Your task to perform on an android device: open device folders in google photos Image 0: 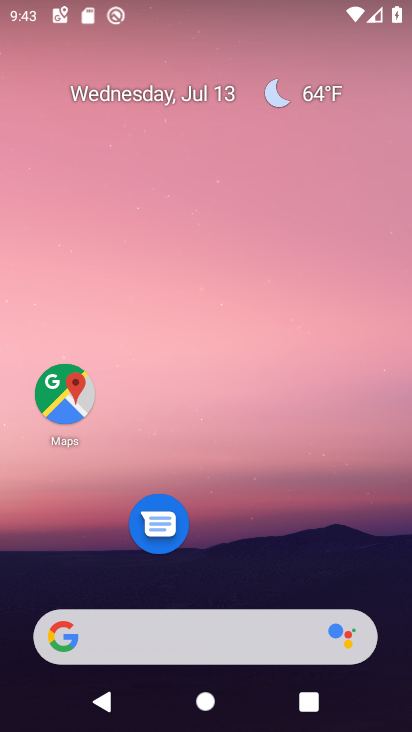
Step 0: drag from (178, 591) to (192, 50)
Your task to perform on an android device: open device folders in google photos Image 1: 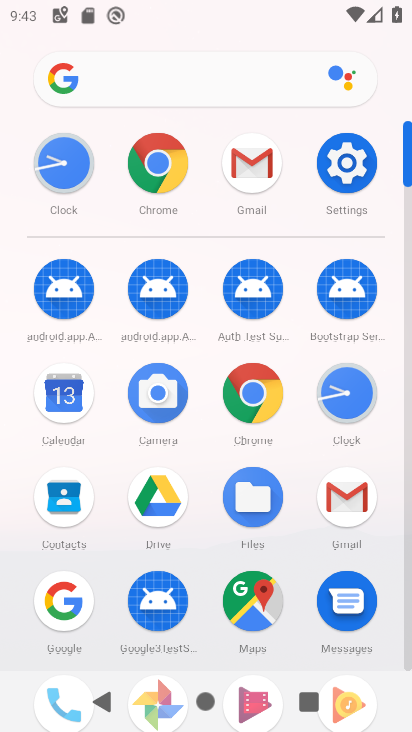
Step 1: drag from (190, 656) to (145, 192)
Your task to perform on an android device: open device folders in google photos Image 2: 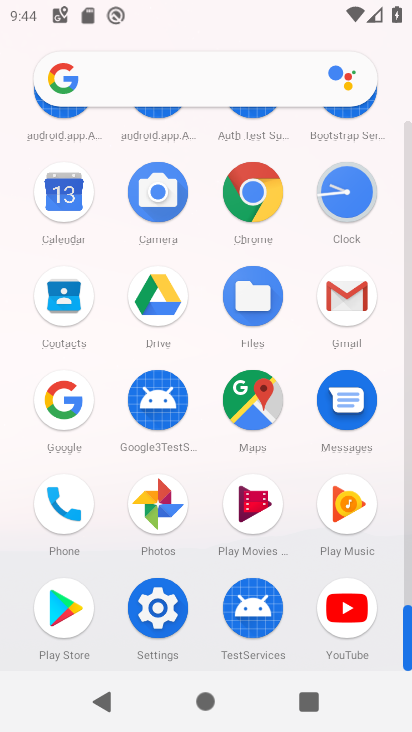
Step 2: click (168, 490)
Your task to perform on an android device: open device folders in google photos Image 3: 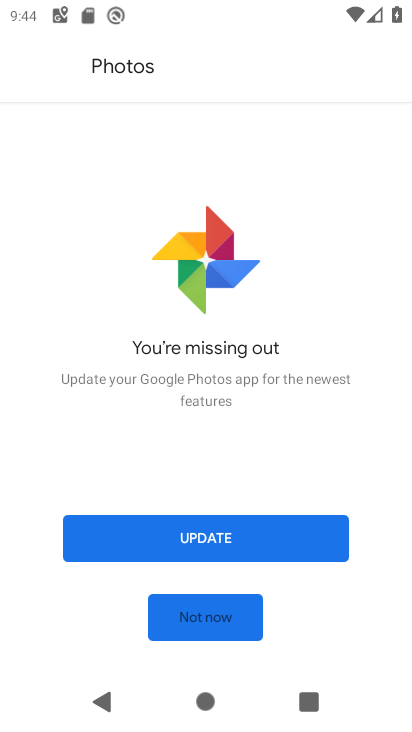
Step 3: click (216, 606)
Your task to perform on an android device: open device folders in google photos Image 4: 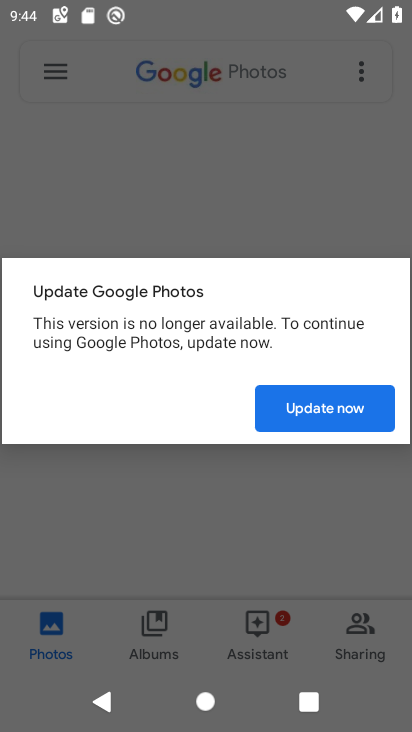
Step 4: click (295, 419)
Your task to perform on an android device: open device folders in google photos Image 5: 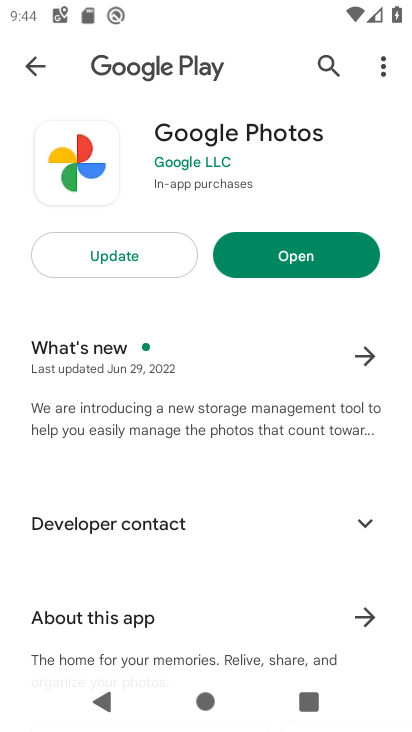
Step 5: click (278, 249)
Your task to perform on an android device: open device folders in google photos Image 6: 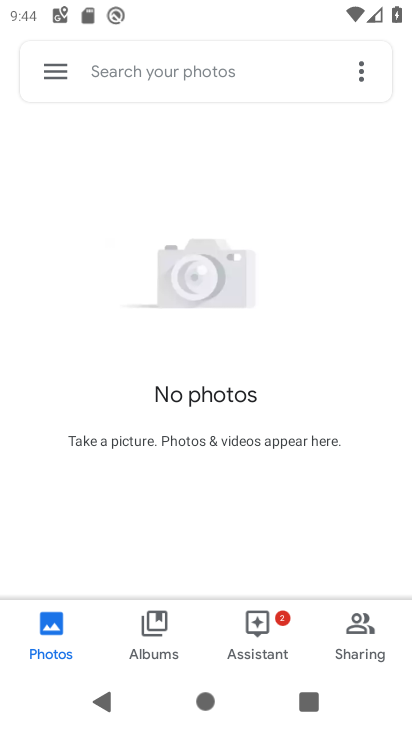
Step 6: drag from (67, 64) to (107, 350)
Your task to perform on an android device: open device folders in google photos Image 7: 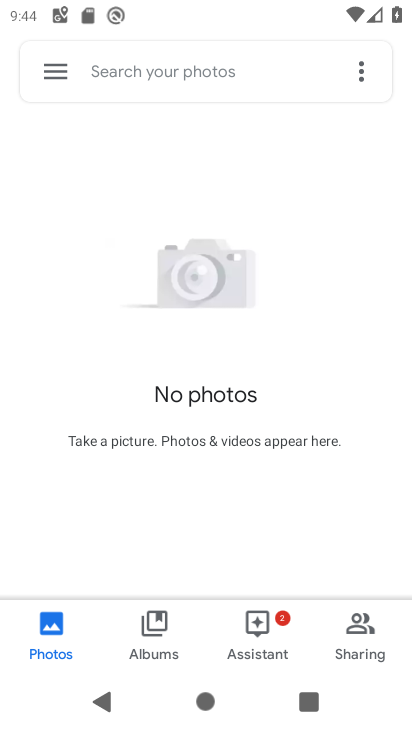
Step 7: click (56, 77)
Your task to perform on an android device: open device folders in google photos Image 8: 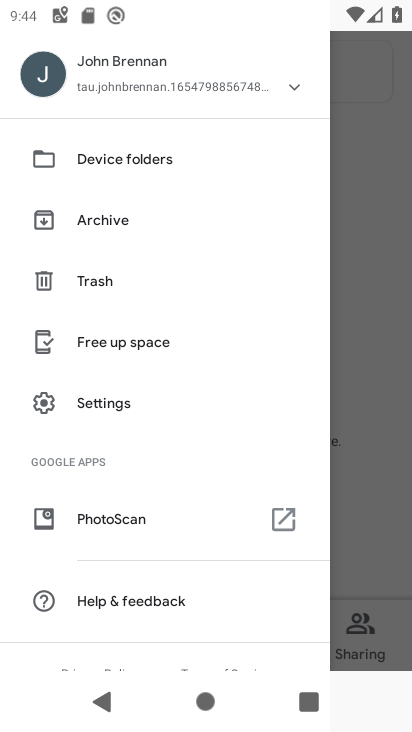
Step 8: click (94, 159)
Your task to perform on an android device: open device folders in google photos Image 9: 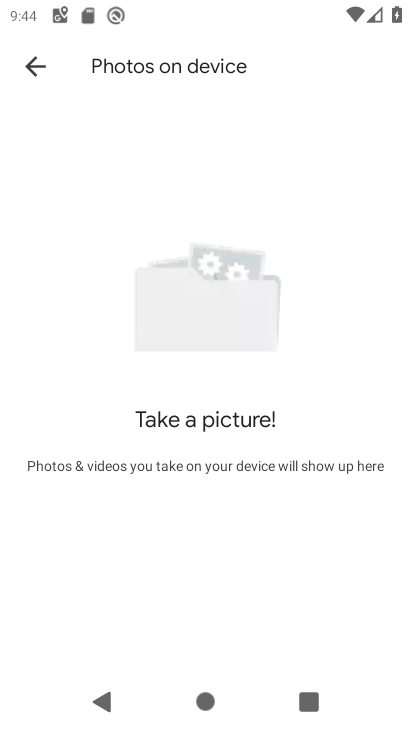
Step 9: task complete